Your task to perform on an android device: Show me the alarms in the clock app Image 0: 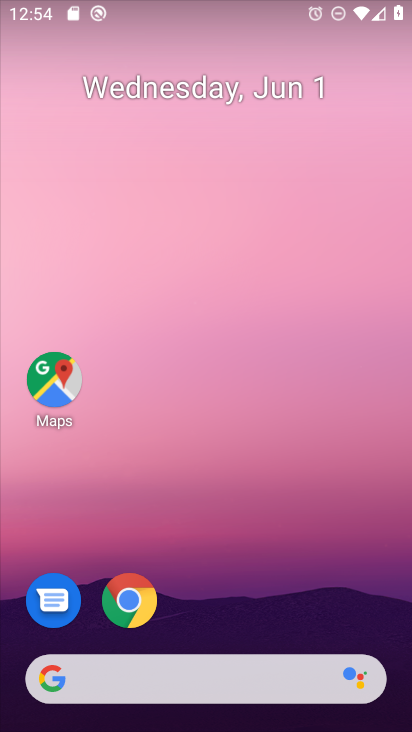
Step 0: press home button
Your task to perform on an android device: Show me the alarms in the clock app Image 1: 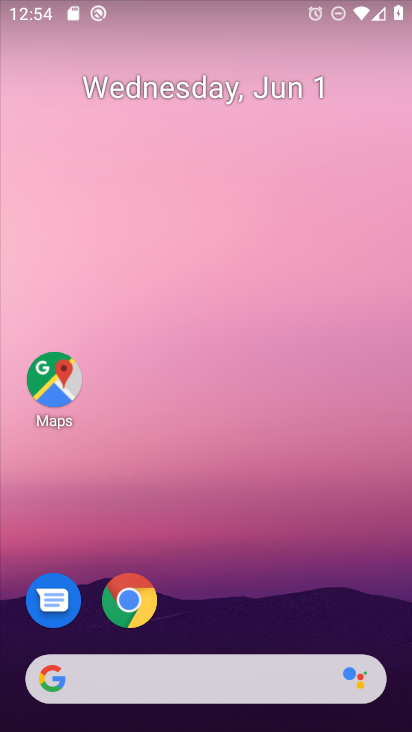
Step 1: drag from (220, 615) to (262, 100)
Your task to perform on an android device: Show me the alarms in the clock app Image 2: 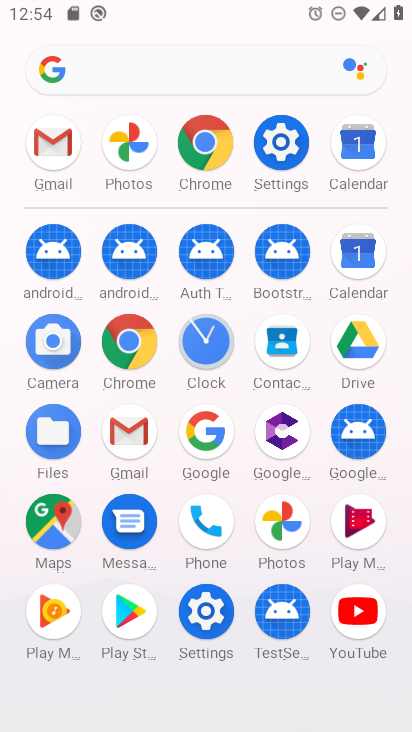
Step 2: click (199, 331)
Your task to perform on an android device: Show me the alarms in the clock app Image 3: 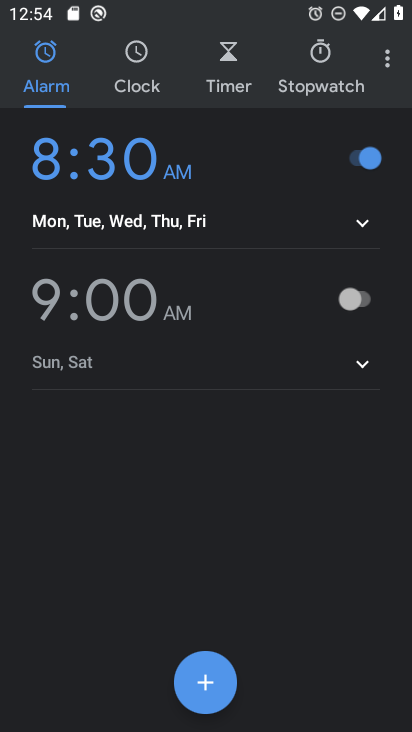
Step 3: click (360, 294)
Your task to perform on an android device: Show me the alarms in the clock app Image 4: 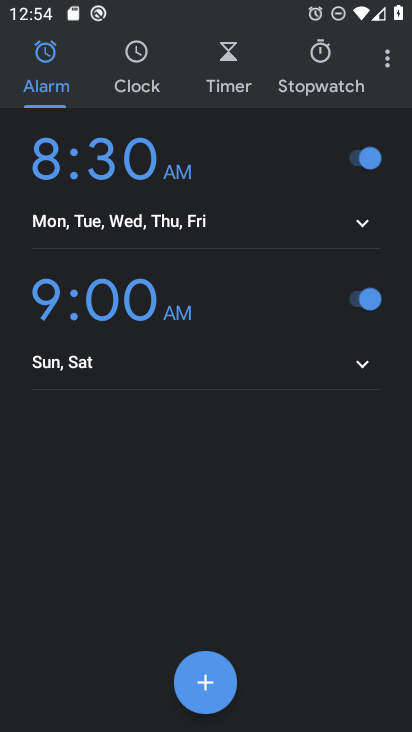
Step 4: task complete